Your task to perform on an android device: Go to internet settings Image 0: 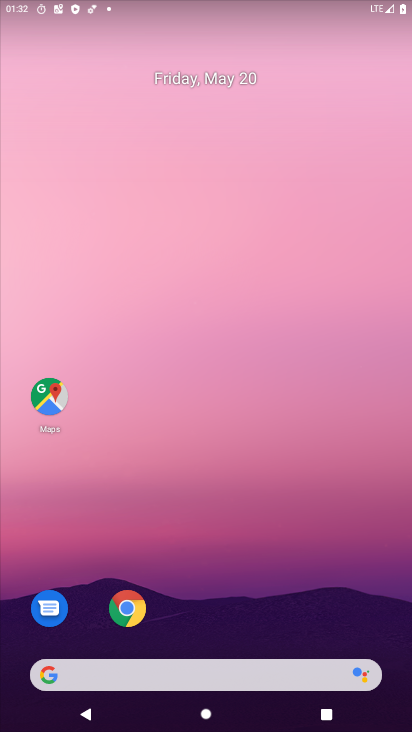
Step 0: drag from (292, 545) to (261, 177)
Your task to perform on an android device: Go to internet settings Image 1: 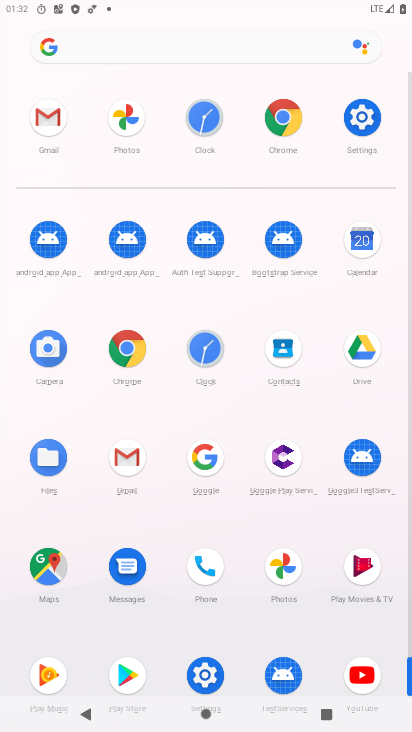
Step 1: click (208, 667)
Your task to perform on an android device: Go to internet settings Image 2: 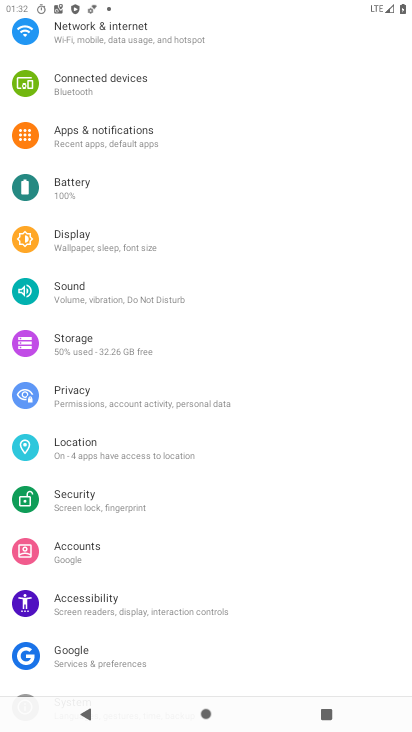
Step 2: click (163, 39)
Your task to perform on an android device: Go to internet settings Image 3: 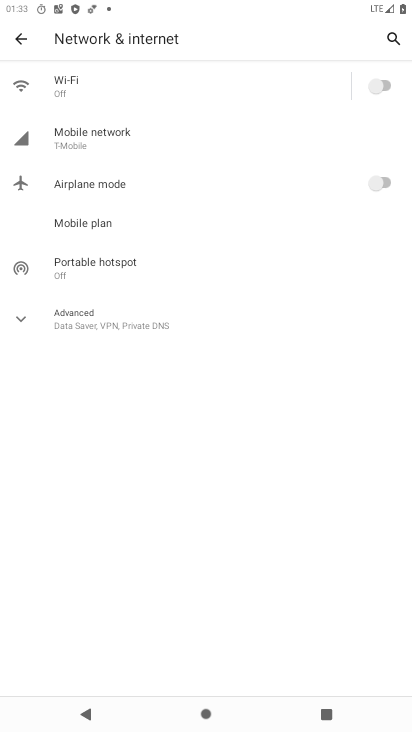
Step 3: click (100, 130)
Your task to perform on an android device: Go to internet settings Image 4: 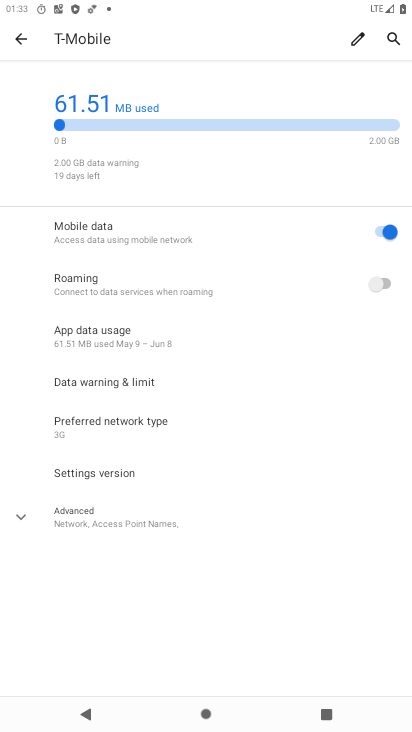
Step 4: task complete